Your task to perform on an android device: Open the web browser Image 0: 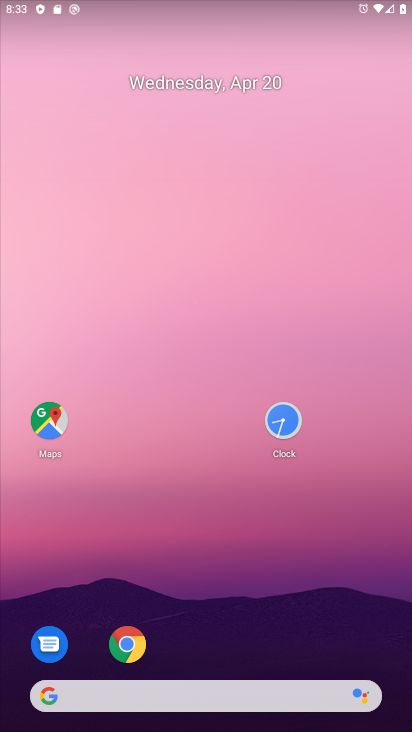
Step 0: drag from (177, 532) to (223, 63)
Your task to perform on an android device: Open the web browser Image 1: 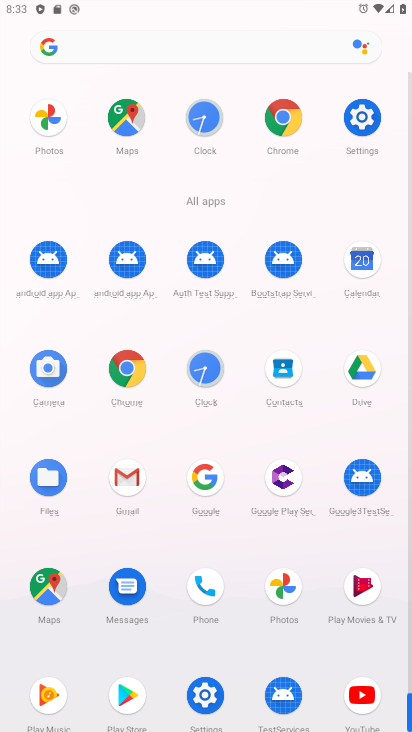
Step 1: click (124, 366)
Your task to perform on an android device: Open the web browser Image 2: 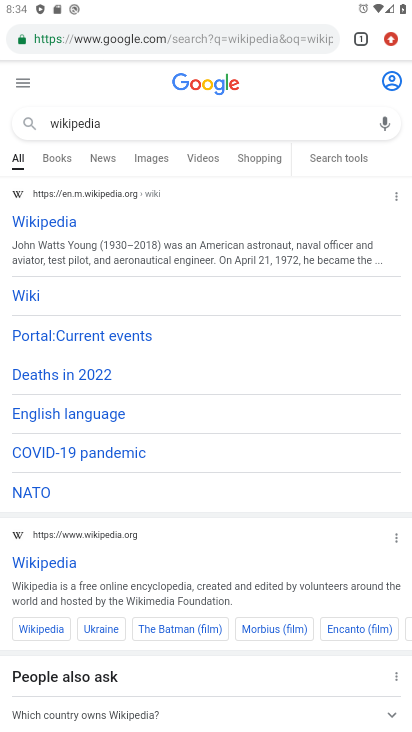
Step 2: task complete